Your task to perform on an android device: Open network settings Image 0: 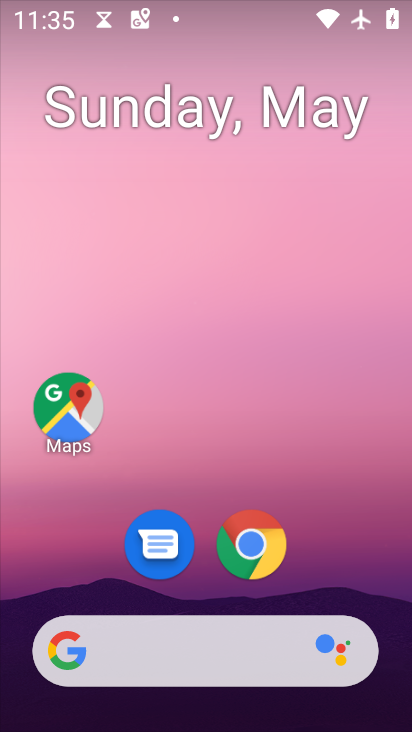
Step 0: drag from (324, 604) to (367, 211)
Your task to perform on an android device: Open network settings Image 1: 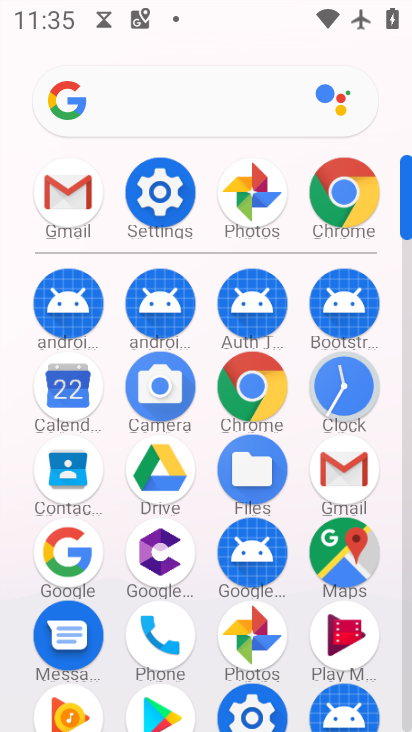
Step 1: click (144, 187)
Your task to perform on an android device: Open network settings Image 2: 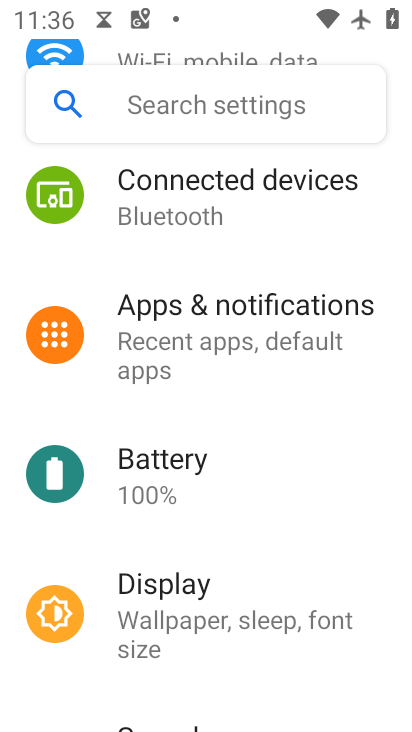
Step 2: click (237, 304)
Your task to perform on an android device: Open network settings Image 3: 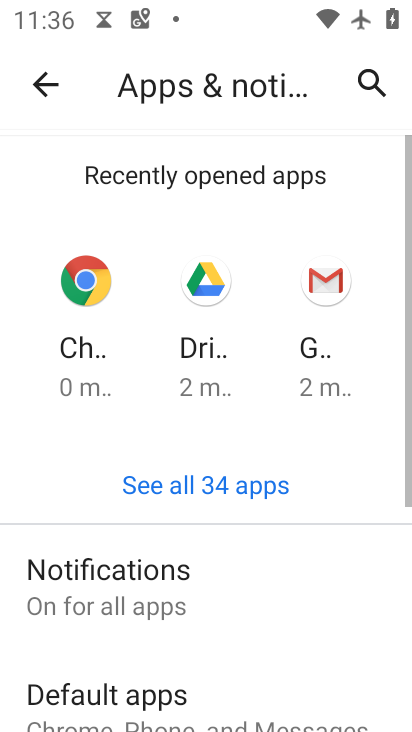
Step 3: click (50, 88)
Your task to perform on an android device: Open network settings Image 4: 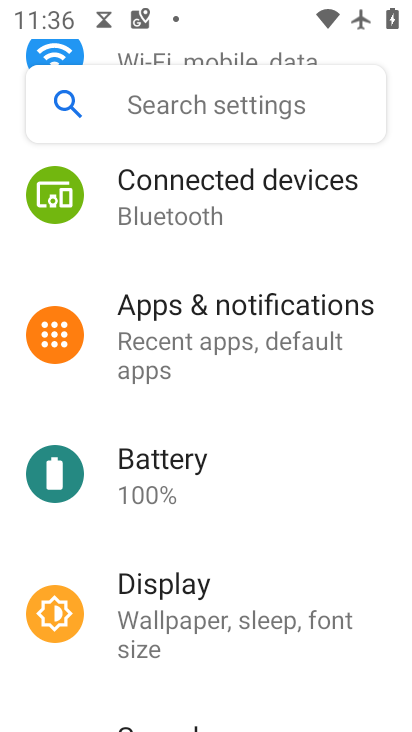
Step 4: drag from (262, 200) to (258, 673)
Your task to perform on an android device: Open network settings Image 5: 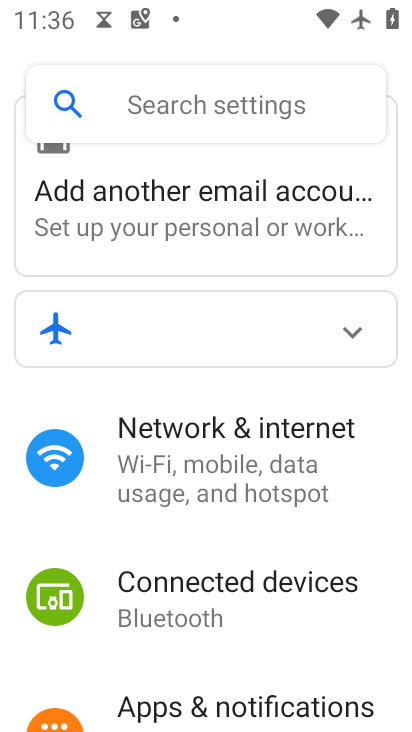
Step 5: click (282, 451)
Your task to perform on an android device: Open network settings Image 6: 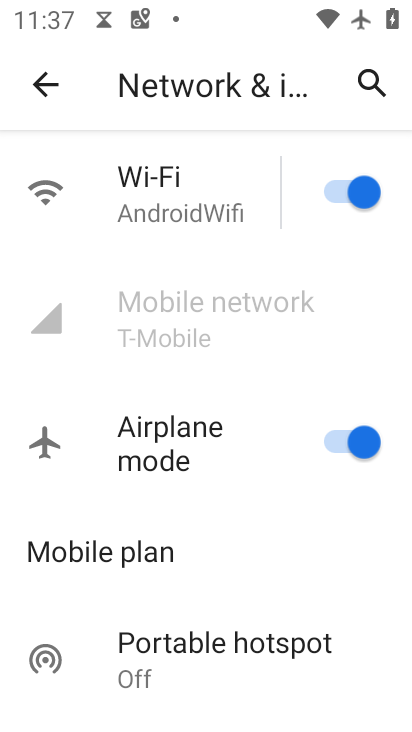
Step 6: task complete